Your task to perform on an android device: Clear the shopping cart on walmart. Image 0: 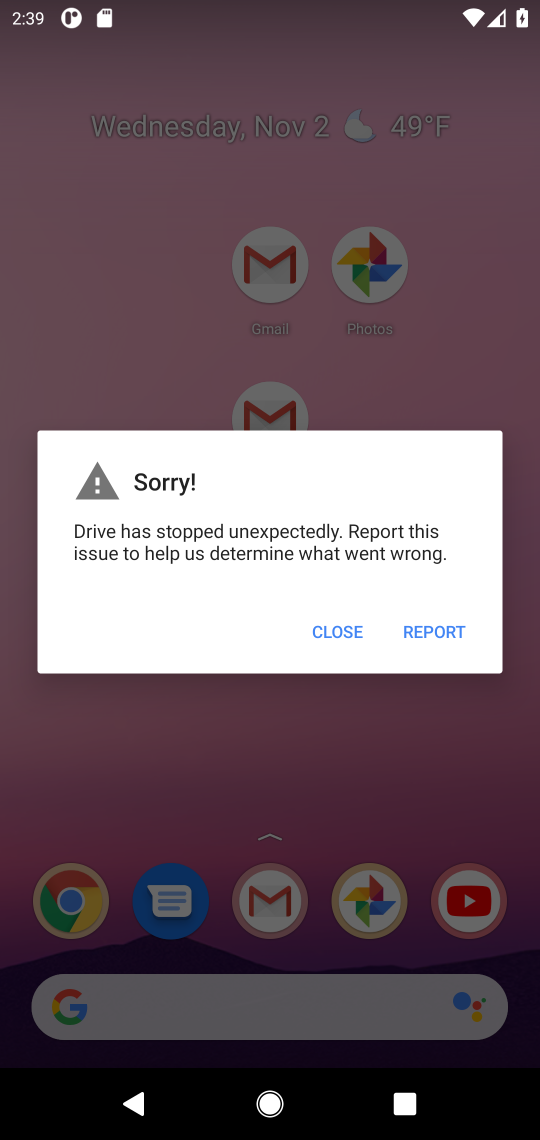
Step 0: press home button
Your task to perform on an android device: Clear the shopping cart on walmart. Image 1: 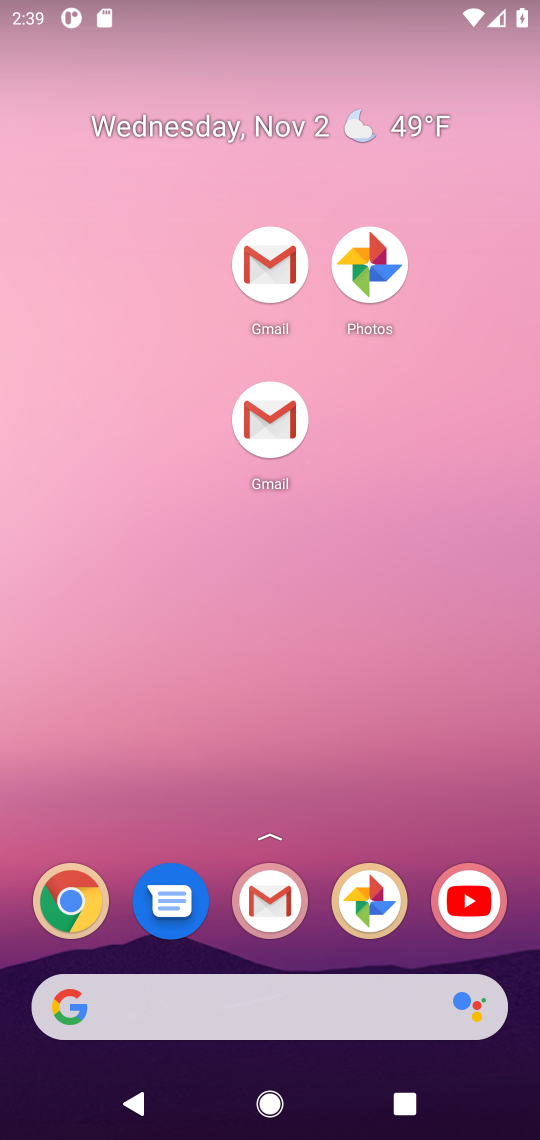
Step 1: drag from (330, 939) to (397, 2)
Your task to perform on an android device: Clear the shopping cart on walmart. Image 2: 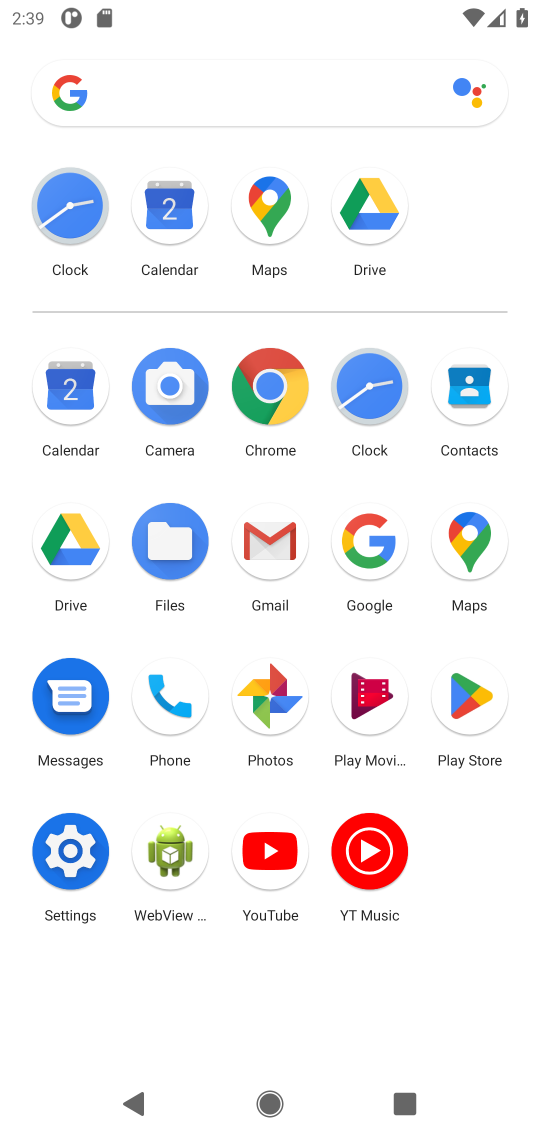
Step 2: click (260, 377)
Your task to perform on an android device: Clear the shopping cart on walmart. Image 3: 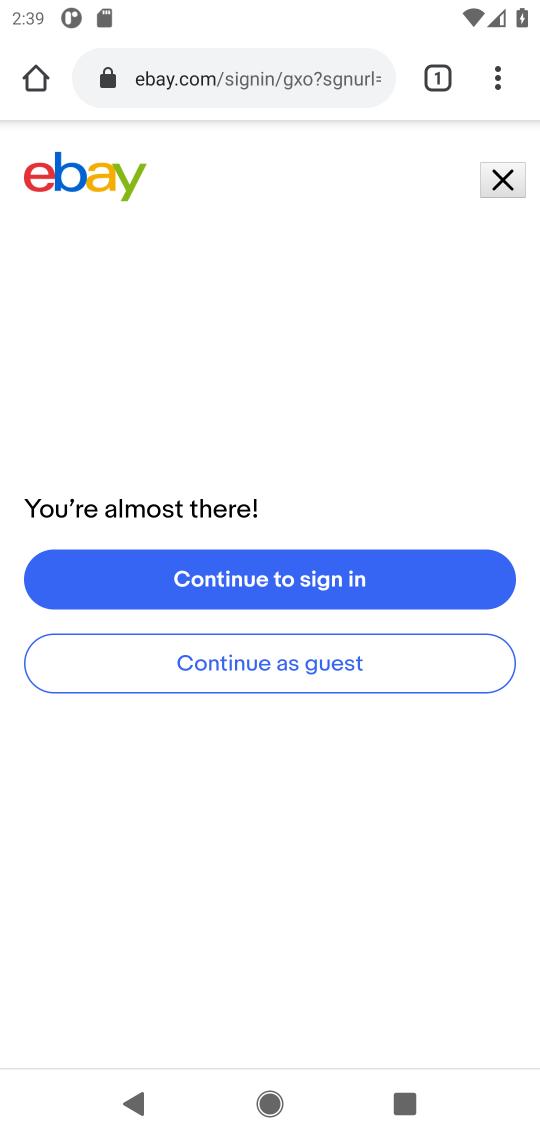
Step 3: click (312, 72)
Your task to perform on an android device: Clear the shopping cart on walmart. Image 4: 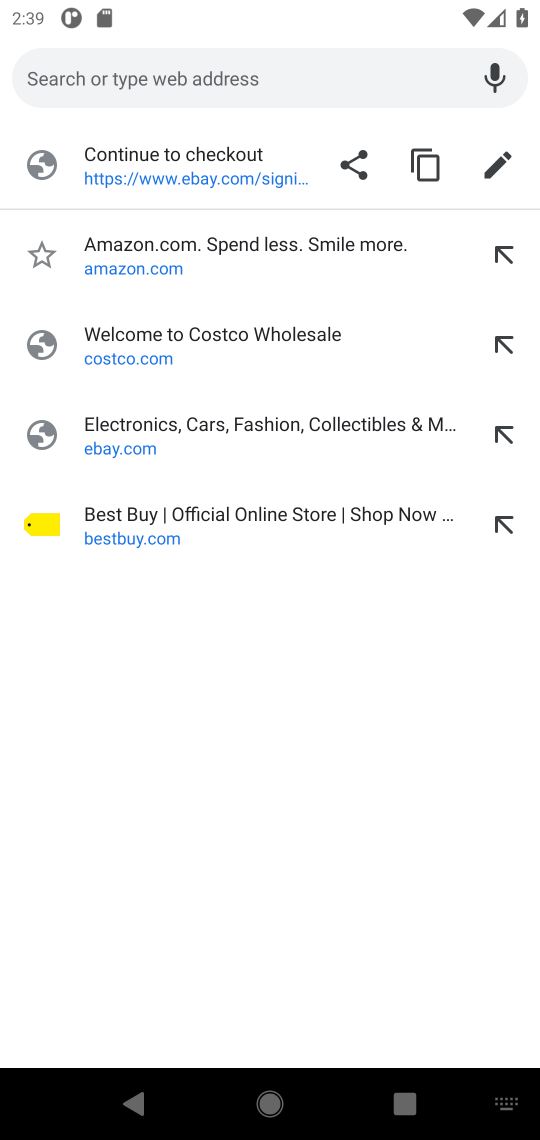
Step 4: type "walmart.com"
Your task to perform on an android device: Clear the shopping cart on walmart. Image 5: 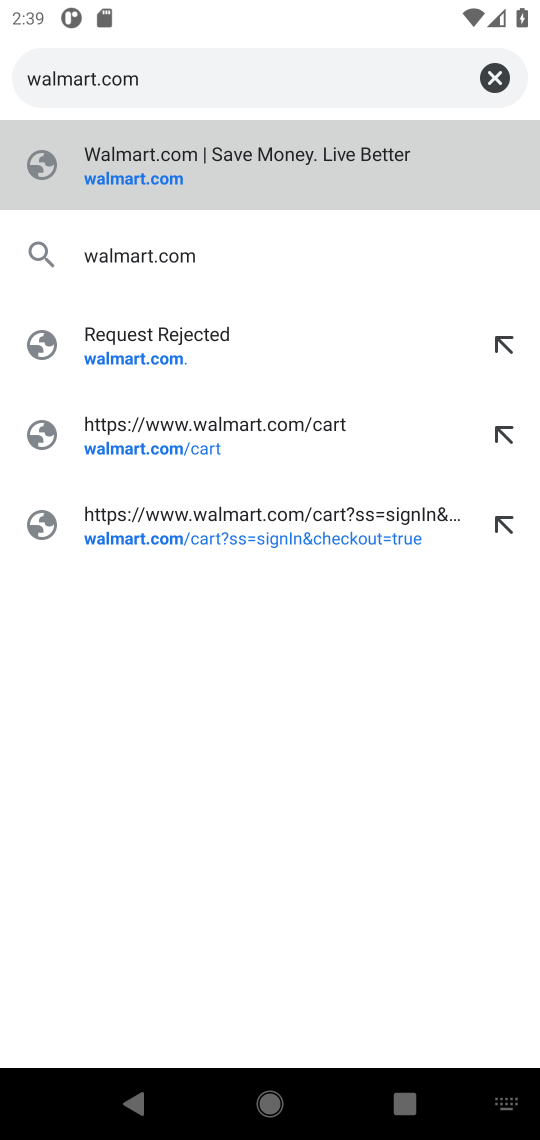
Step 5: press enter
Your task to perform on an android device: Clear the shopping cart on walmart. Image 6: 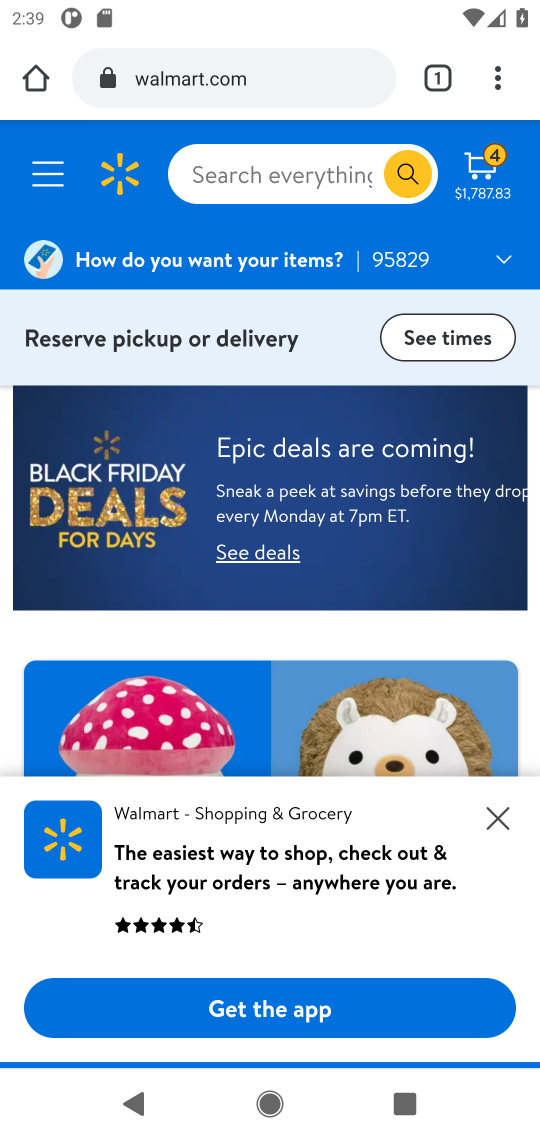
Step 6: click (498, 155)
Your task to perform on an android device: Clear the shopping cart on walmart. Image 7: 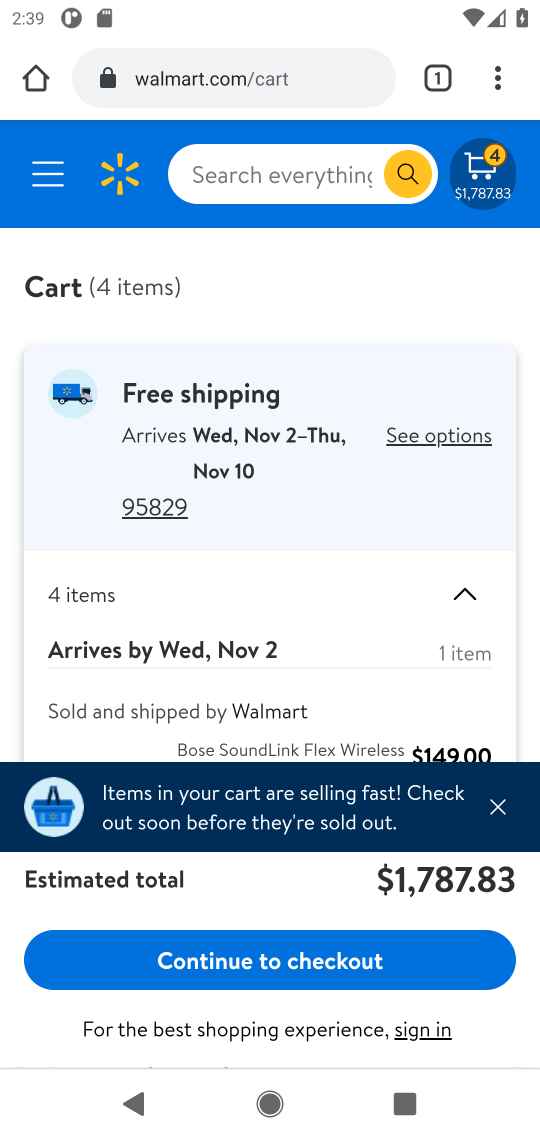
Step 7: drag from (318, 659) to (351, 236)
Your task to perform on an android device: Clear the shopping cart on walmart. Image 8: 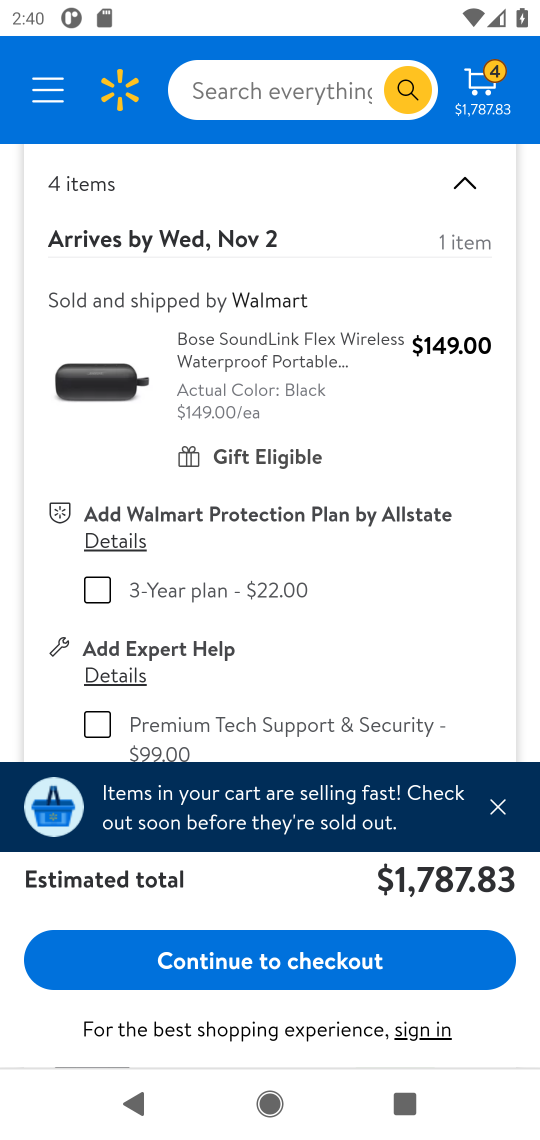
Step 8: drag from (303, 631) to (378, 350)
Your task to perform on an android device: Clear the shopping cart on walmart. Image 9: 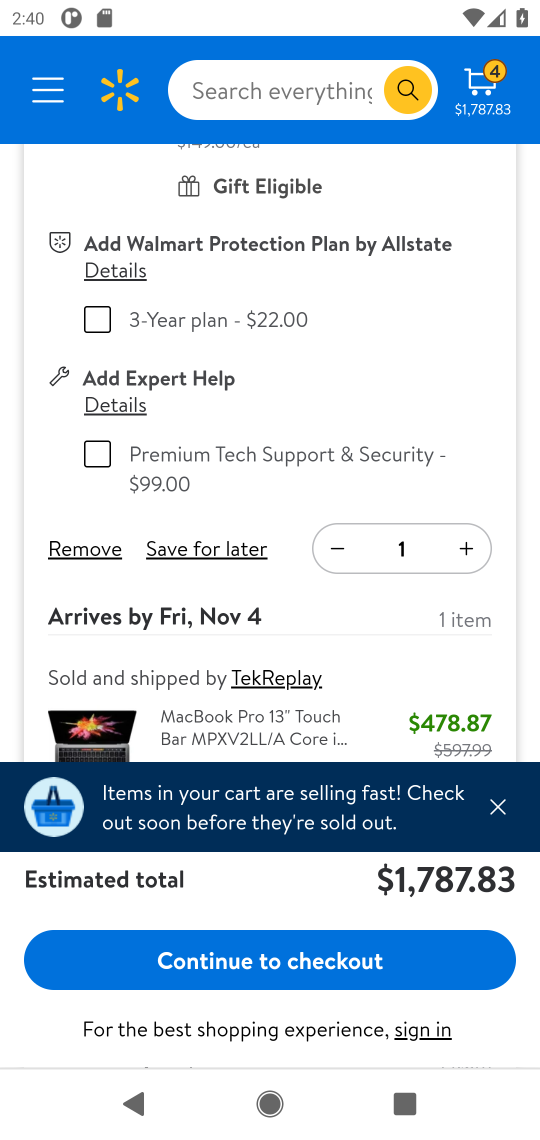
Step 9: click (89, 550)
Your task to perform on an android device: Clear the shopping cart on walmart. Image 10: 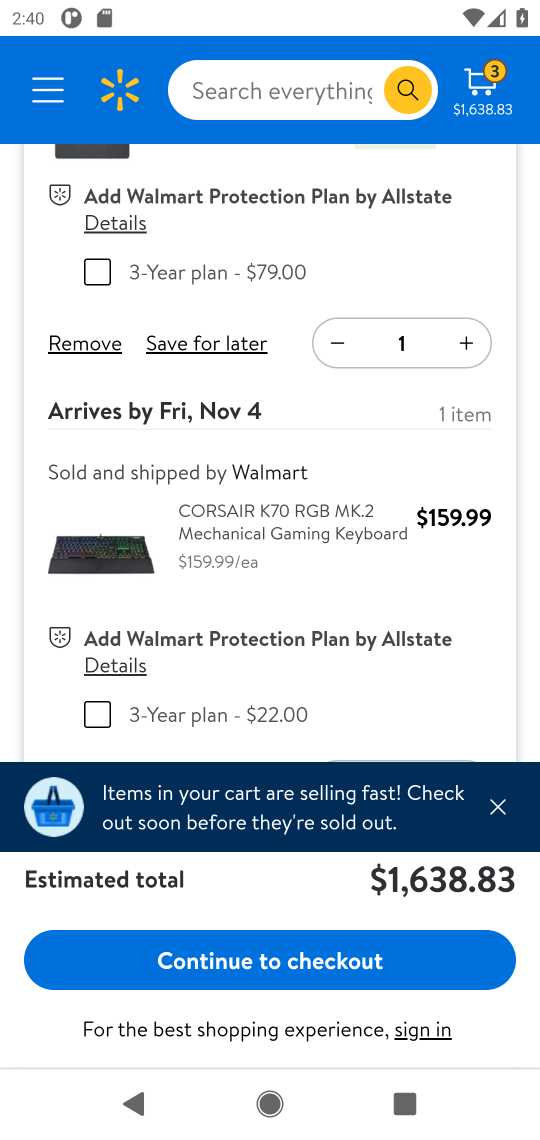
Step 10: click (78, 339)
Your task to perform on an android device: Clear the shopping cart on walmart. Image 11: 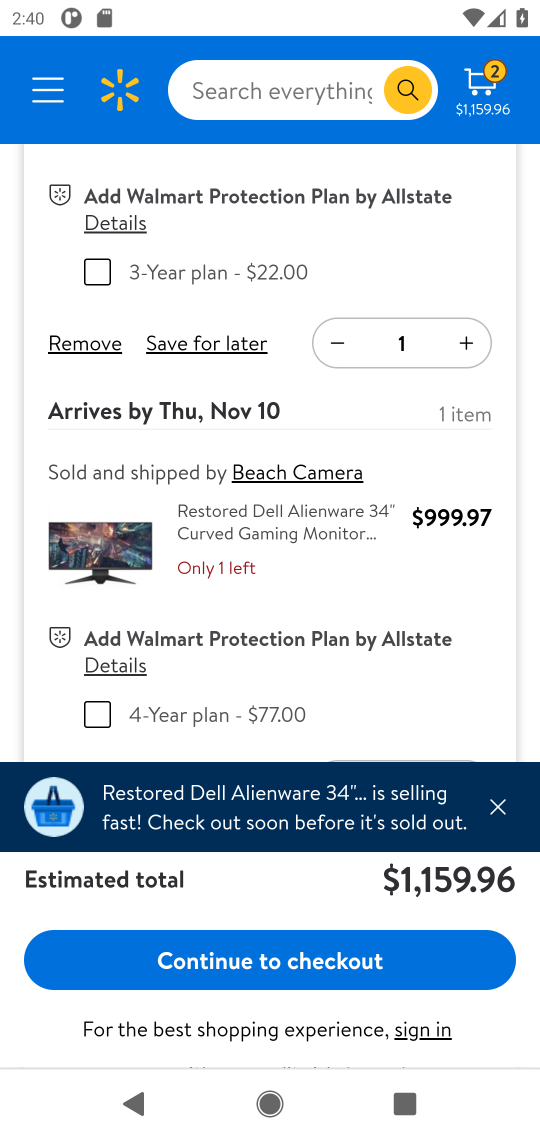
Step 11: click (80, 347)
Your task to perform on an android device: Clear the shopping cart on walmart. Image 12: 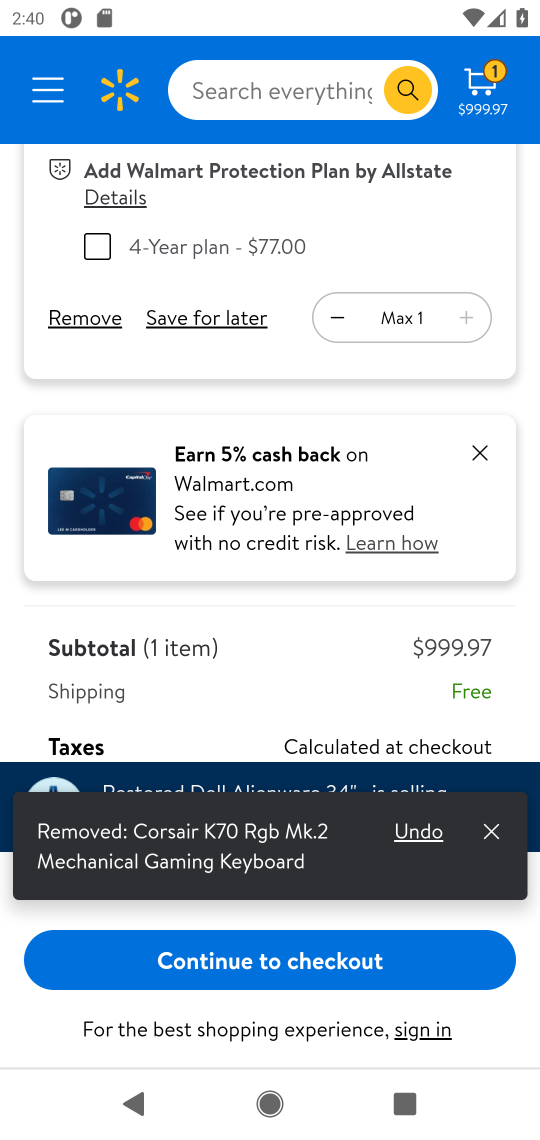
Step 12: click (82, 392)
Your task to perform on an android device: Clear the shopping cart on walmart. Image 13: 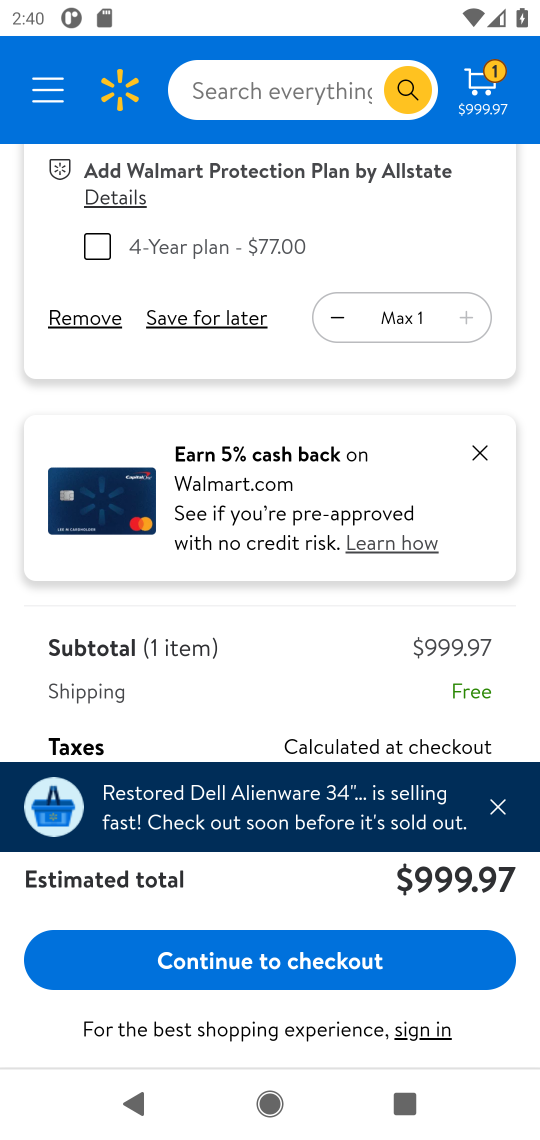
Step 13: click (83, 323)
Your task to perform on an android device: Clear the shopping cart on walmart. Image 14: 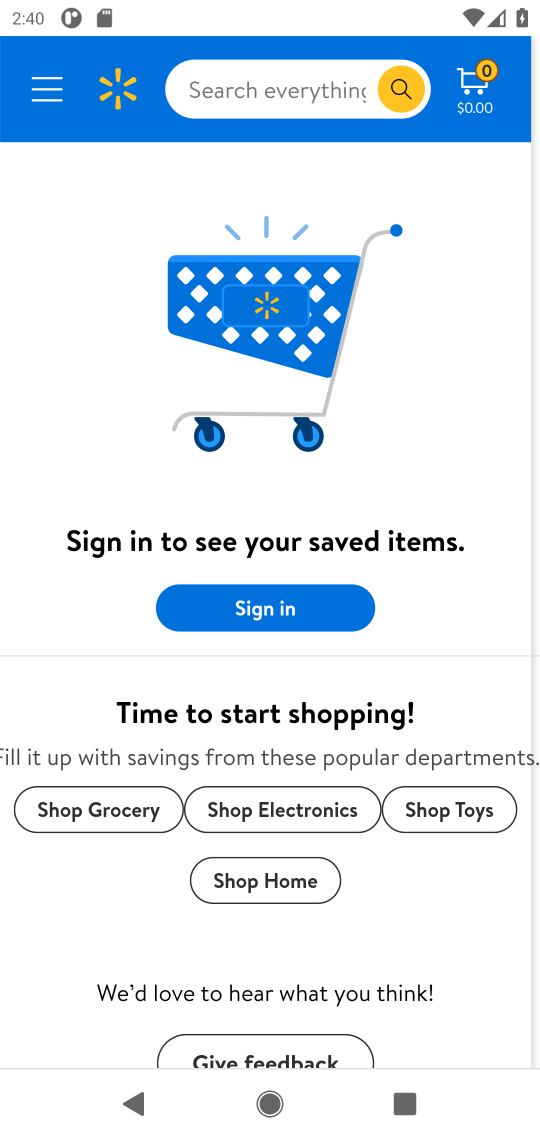
Step 14: task complete